Your task to perform on an android device: turn notification dots on Image 0: 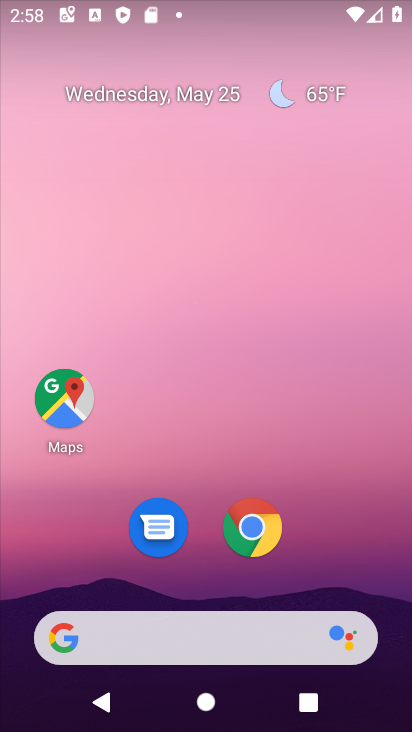
Step 0: drag from (282, 622) to (272, 69)
Your task to perform on an android device: turn notification dots on Image 1: 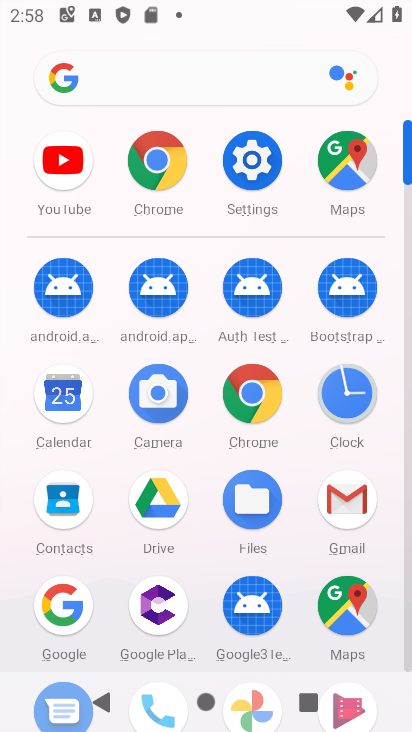
Step 1: click (265, 159)
Your task to perform on an android device: turn notification dots on Image 2: 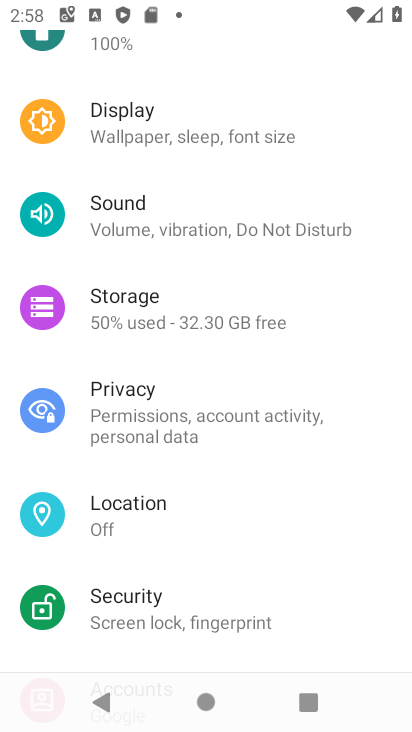
Step 2: drag from (241, 589) to (264, 670)
Your task to perform on an android device: turn notification dots on Image 3: 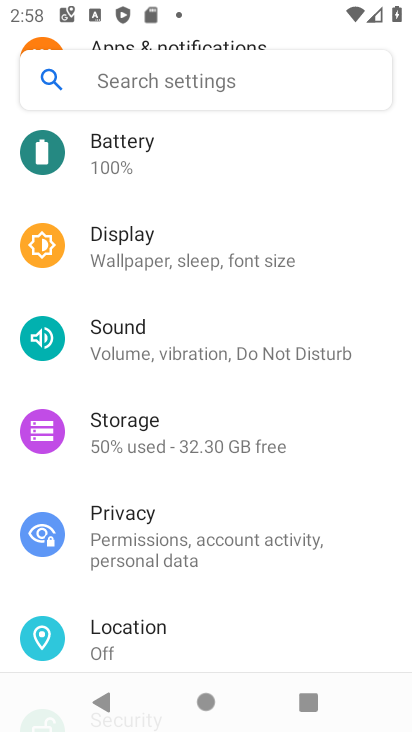
Step 3: drag from (259, 246) to (263, 714)
Your task to perform on an android device: turn notification dots on Image 4: 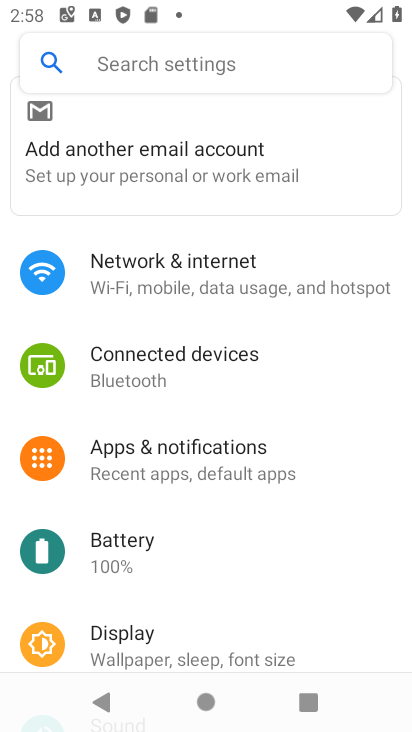
Step 4: click (209, 475)
Your task to perform on an android device: turn notification dots on Image 5: 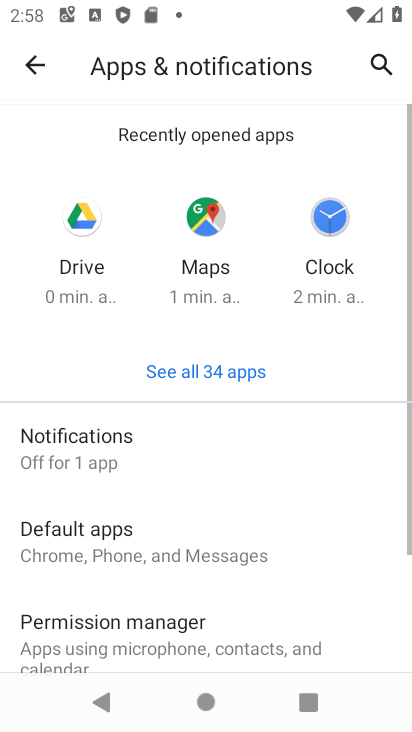
Step 5: drag from (235, 587) to (240, 394)
Your task to perform on an android device: turn notification dots on Image 6: 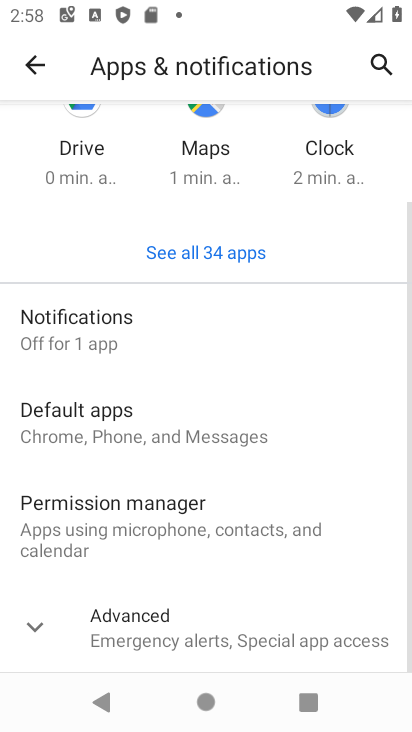
Step 6: click (223, 326)
Your task to perform on an android device: turn notification dots on Image 7: 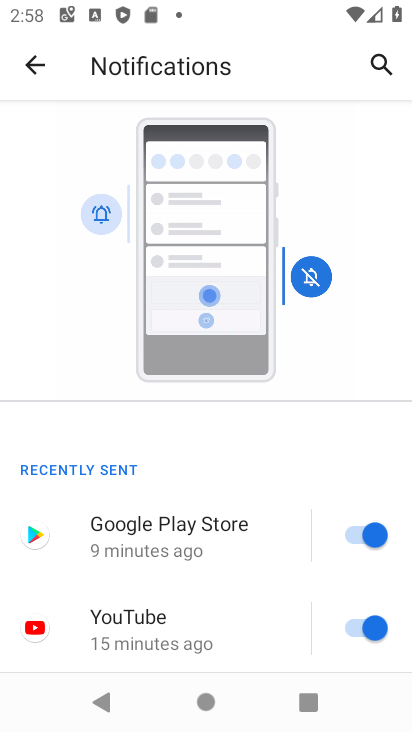
Step 7: drag from (202, 616) to (204, 87)
Your task to perform on an android device: turn notification dots on Image 8: 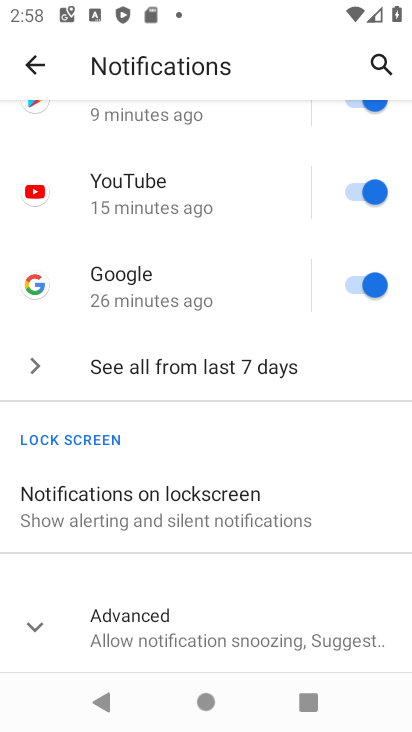
Step 8: click (216, 633)
Your task to perform on an android device: turn notification dots on Image 9: 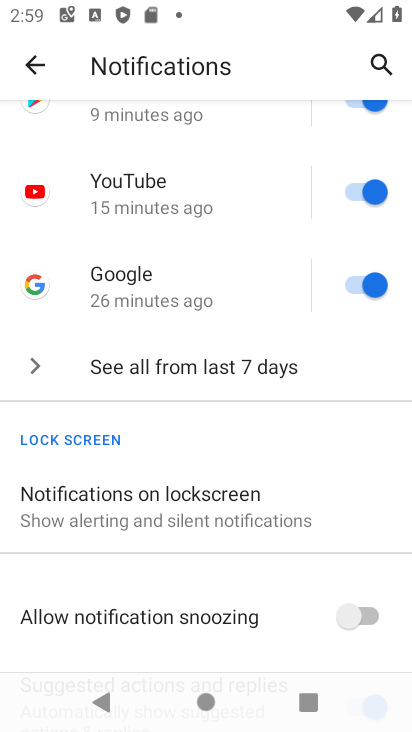
Step 9: drag from (241, 662) to (273, 163)
Your task to perform on an android device: turn notification dots on Image 10: 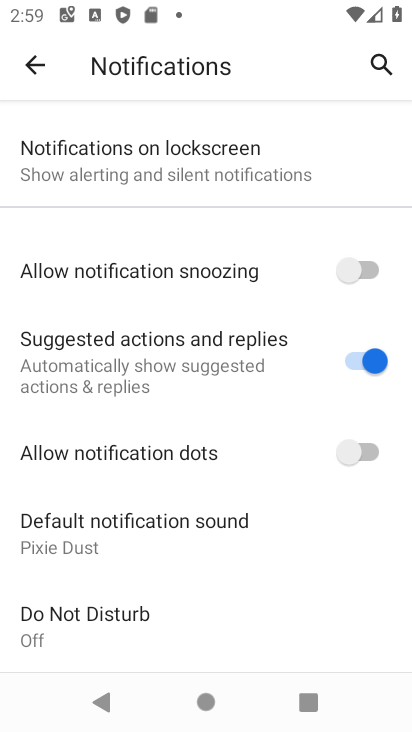
Step 10: click (358, 449)
Your task to perform on an android device: turn notification dots on Image 11: 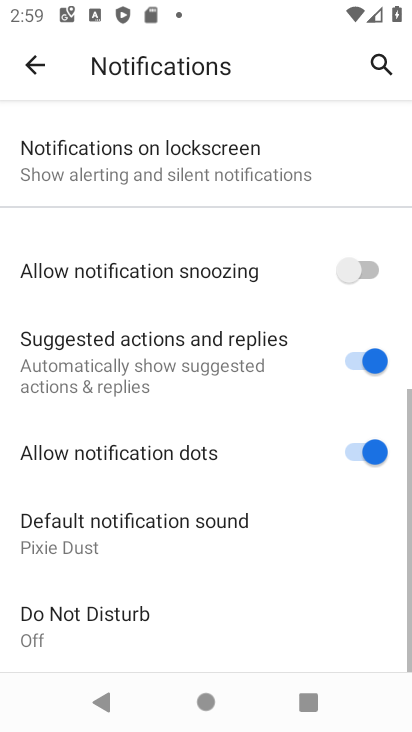
Step 11: task complete